Your task to perform on an android device: Open eBay Image 0: 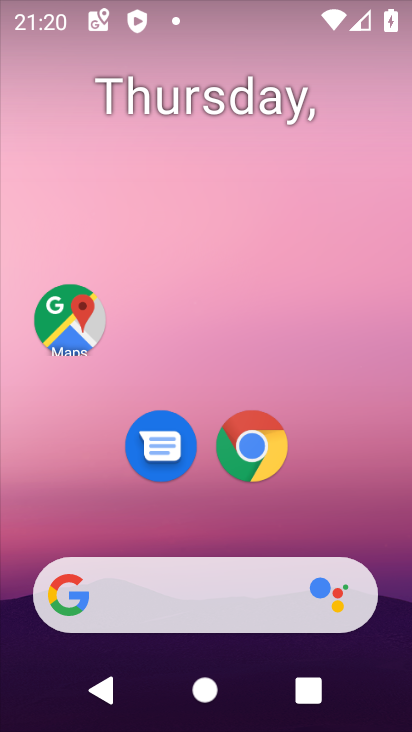
Step 0: click (257, 448)
Your task to perform on an android device: Open eBay Image 1: 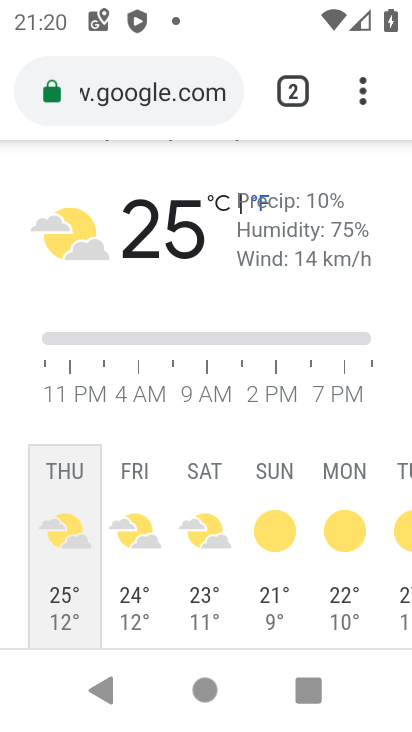
Step 1: click (214, 90)
Your task to perform on an android device: Open eBay Image 2: 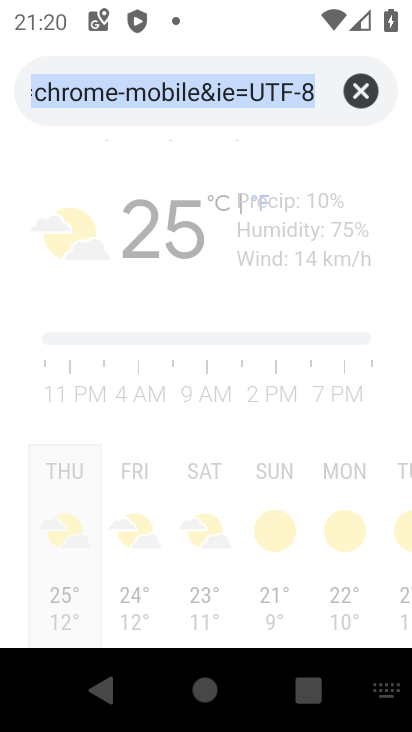
Step 2: click (354, 94)
Your task to perform on an android device: Open eBay Image 3: 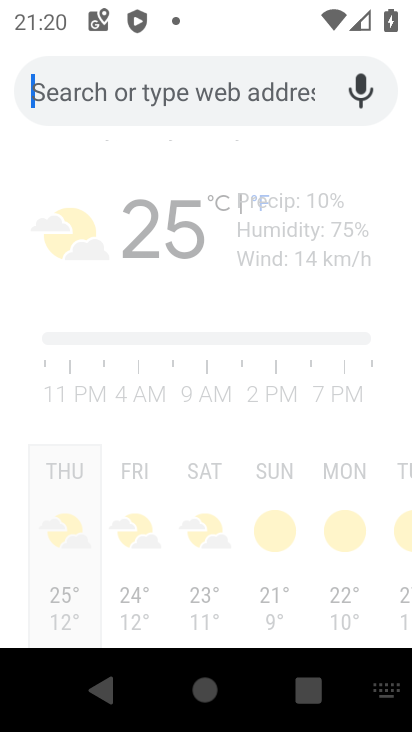
Step 3: type " Italian restaurants"
Your task to perform on an android device: Open eBay Image 4: 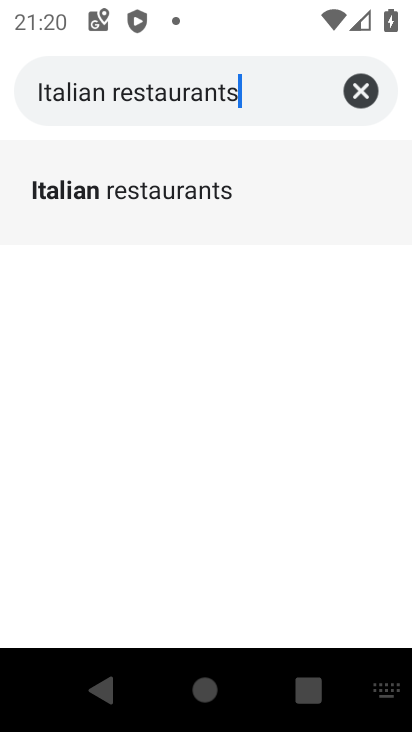
Step 4: type ""
Your task to perform on an android device: Open eBay Image 5: 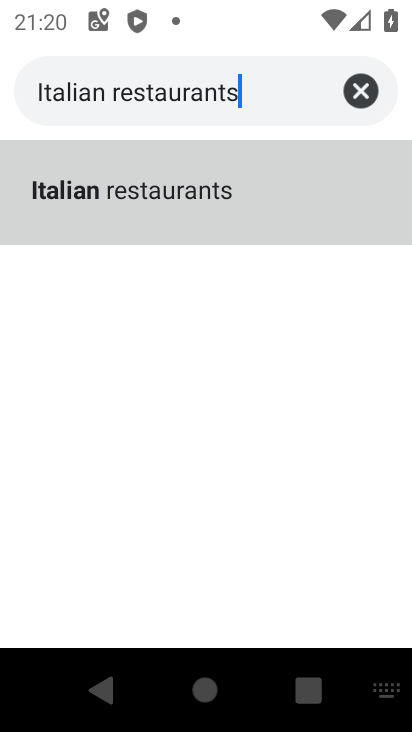
Step 5: click (141, 181)
Your task to perform on an android device: Open eBay Image 6: 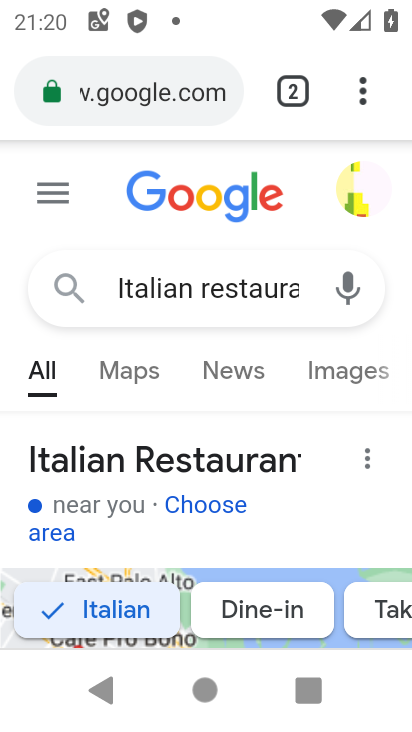
Step 6: click (106, 100)
Your task to perform on an android device: Open eBay Image 7: 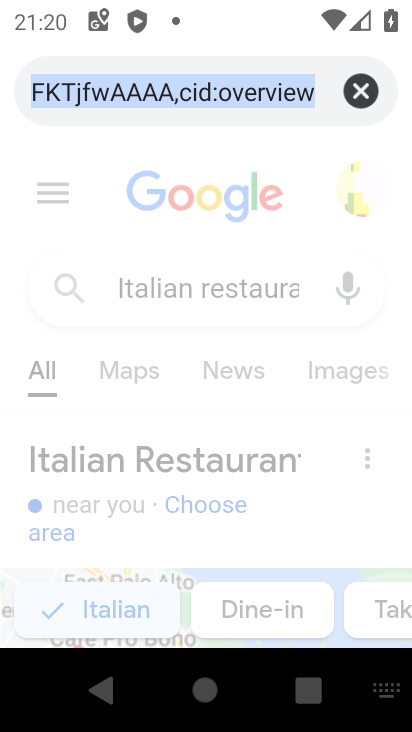
Step 7: click (360, 88)
Your task to perform on an android device: Open eBay Image 8: 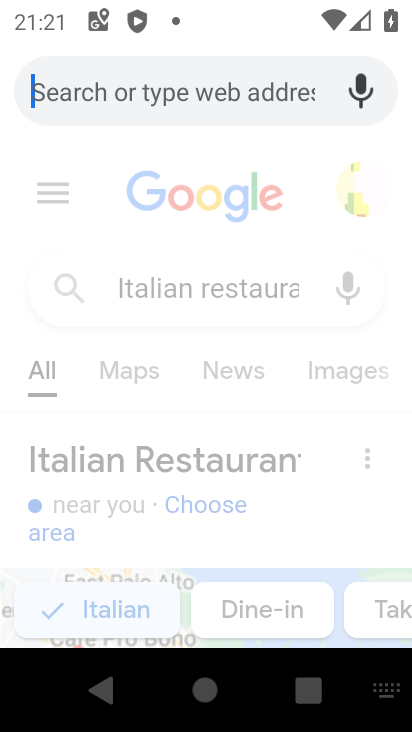
Step 8: type "eBay"
Your task to perform on an android device: Open eBay Image 9: 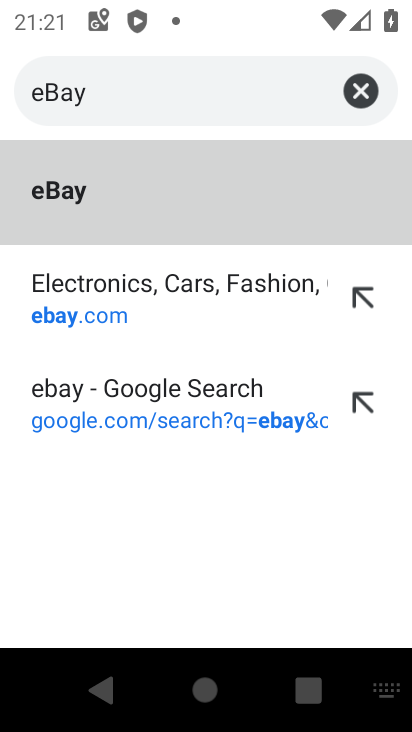
Step 9: click (176, 178)
Your task to perform on an android device: Open eBay Image 10: 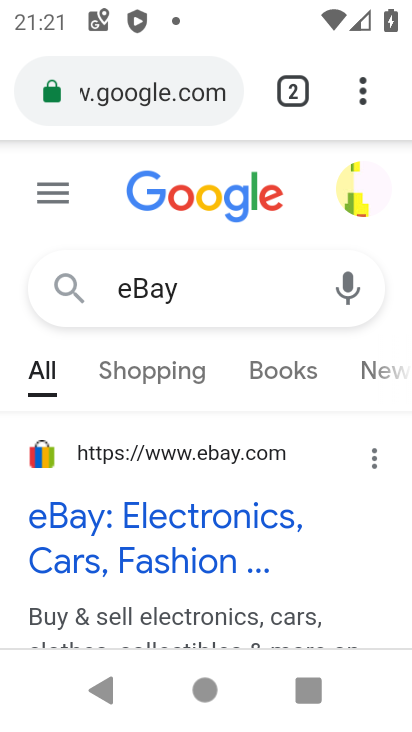
Step 10: task complete